Your task to perform on an android device: Go to sound settings Image 0: 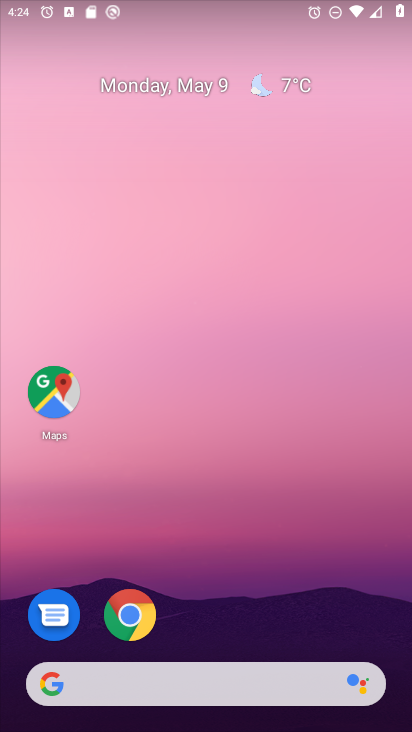
Step 0: drag from (380, 629) to (284, 29)
Your task to perform on an android device: Go to sound settings Image 1: 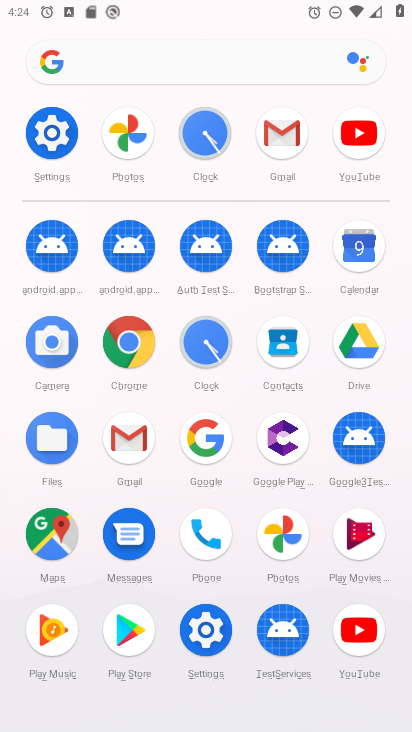
Step 1: click (208, 626)
Your task to perform on an android device: Go to sound settings Image 2: 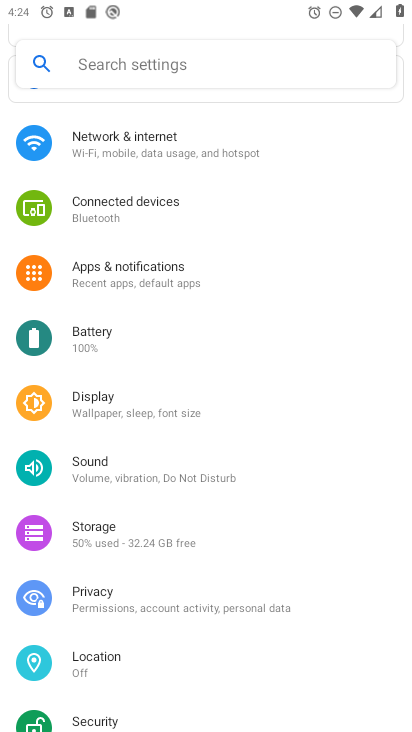
Step 2: click (107, 463)
Your task to perform on an android device: Go to sound settings Image 3: 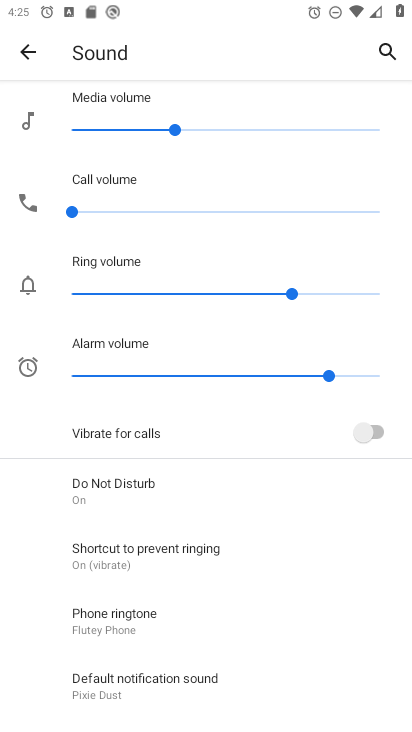
Step 3: drag from (234, 615) to (236, 333)
Your task to perform on an android device: Go to sound settings Image 4: 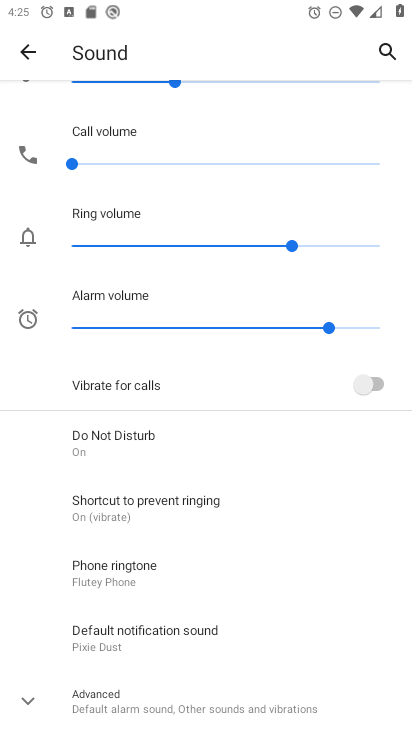
Step 4: click (25, 698)
Your task to perform on an android device: Go to sound settings Image 5: 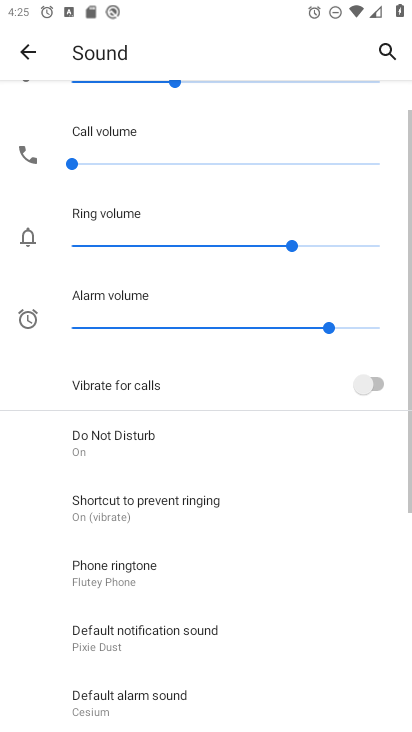
Step 5: task complete